Your task to perform on an android device: Add usb-a to usb-b to the cart on target.com Image 0: 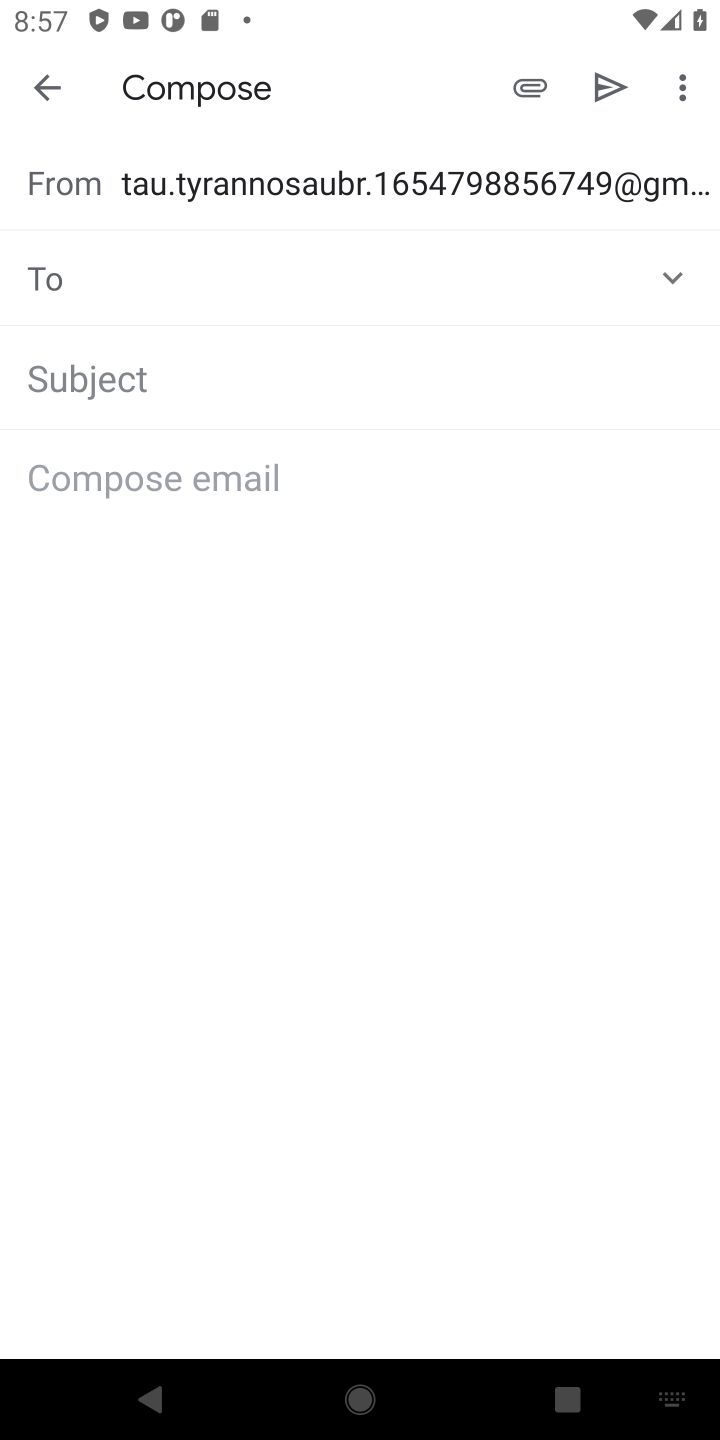
Step 0: press home button
Your task to perform on an android device: Add usb-a to usb-b to the cart on target.com Image 1: 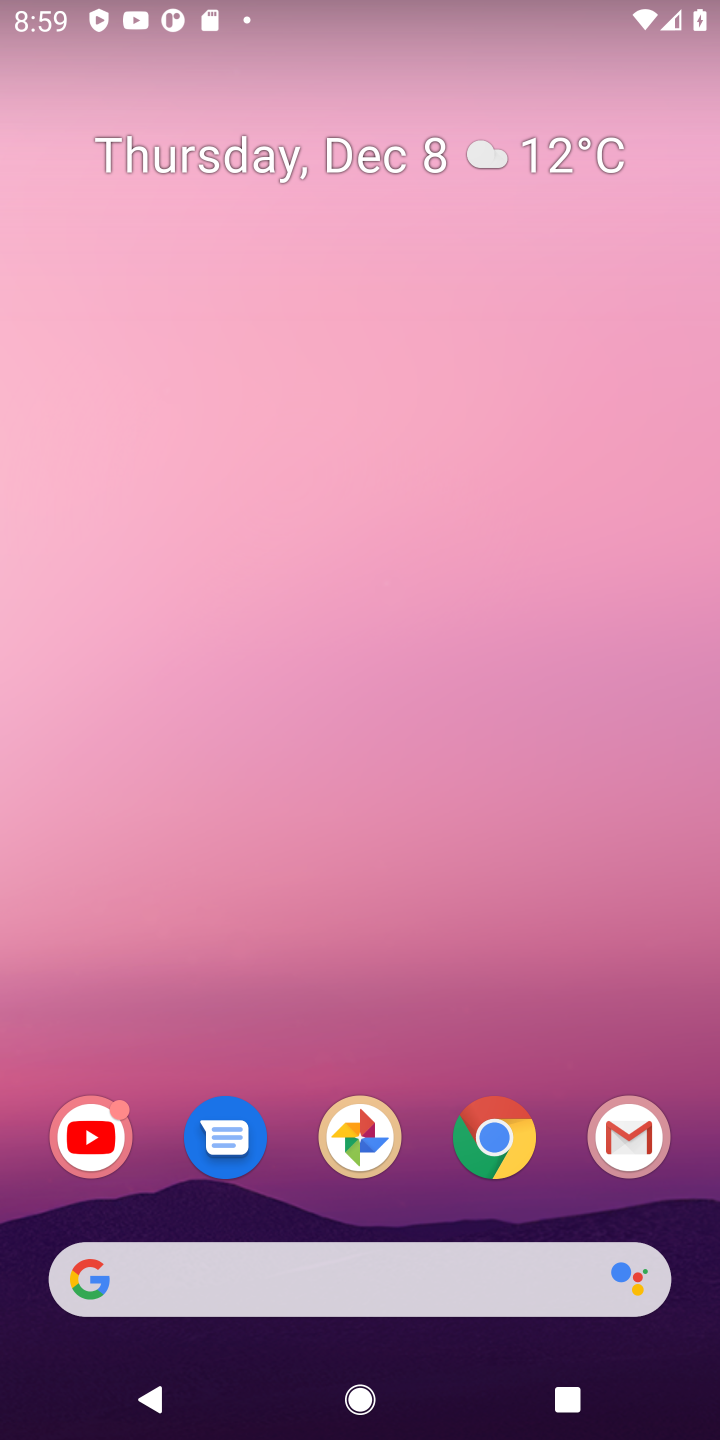
Step 1: click (508, 1157)
Your task to perform on an android device: Add usb-a to usb-b to the cart on target.com Image 2: 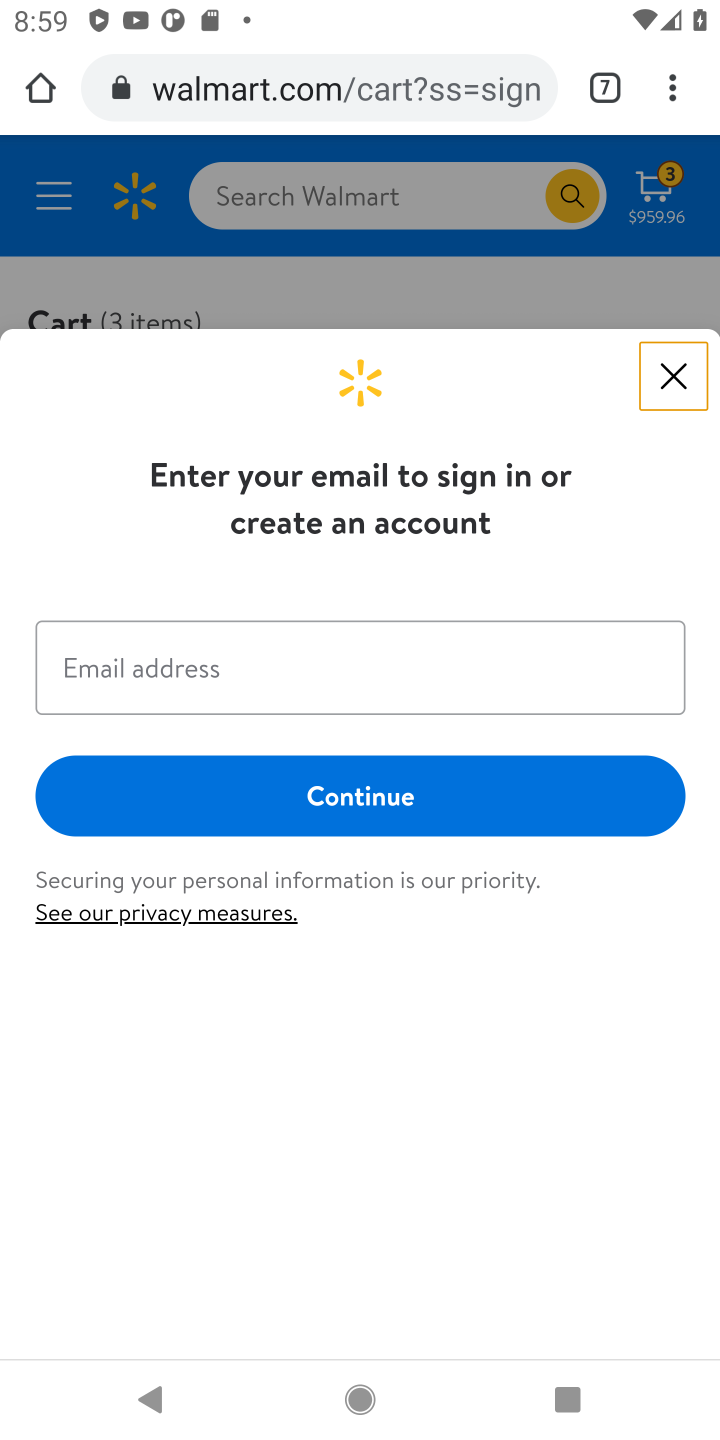
Step 2: click (605, 92)
Your task to perform on an android device: Add usb-a to usb-b to the cart on target.com Image 3: 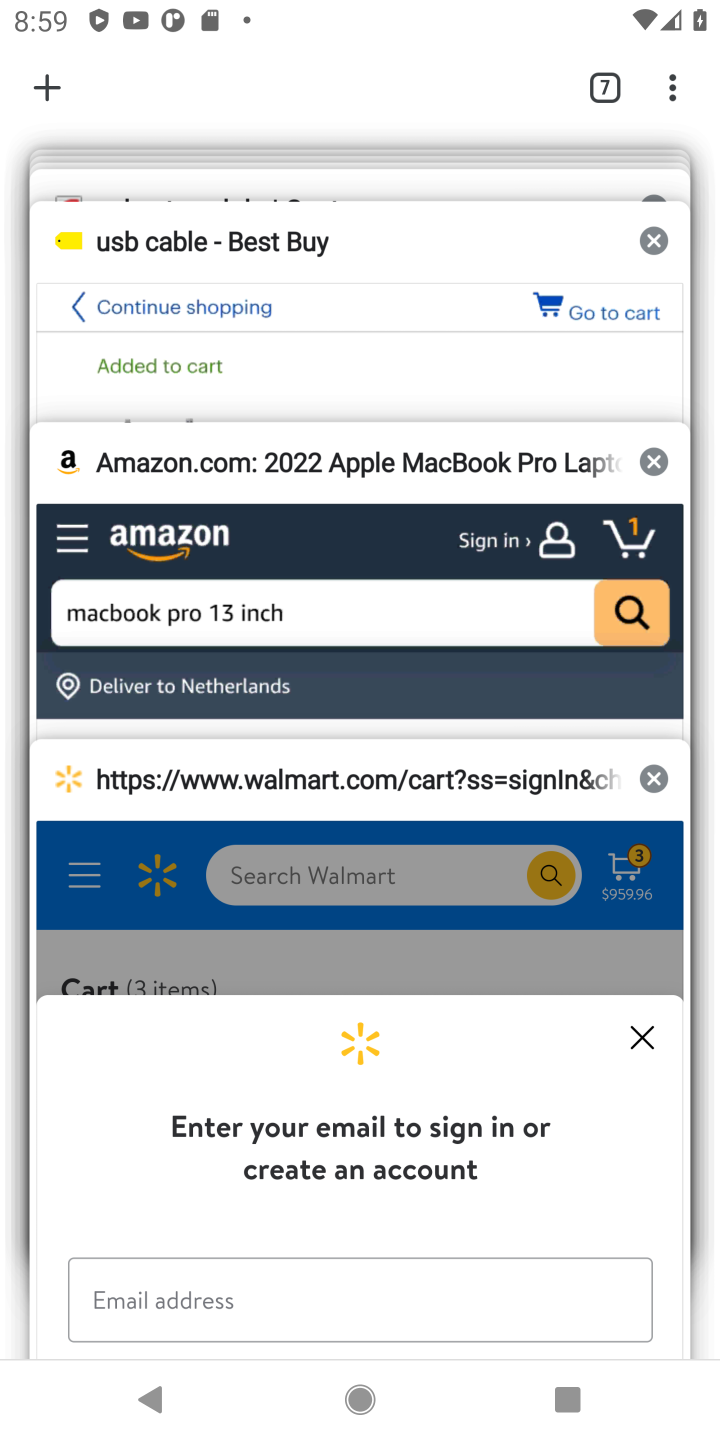
Step 3: drag from (344, 187) to (359, 423)
Your task to perform on an android device: Add usb-a to usb-b to the cart on target.com Image 4: 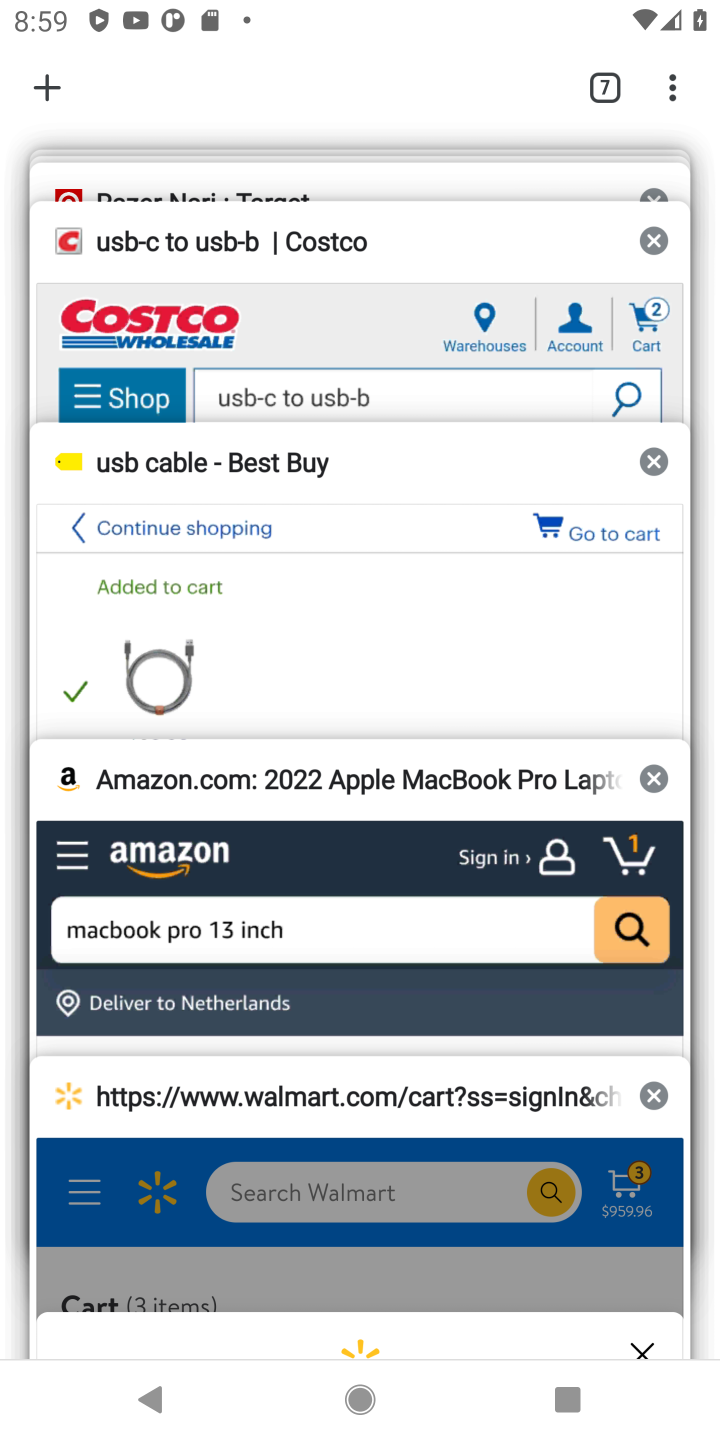
Step 4: drag from (325, 206) to (365, 581)
Your task to perform on an android device: Add usb-a to usb-b to the cart on target.com Image 5: 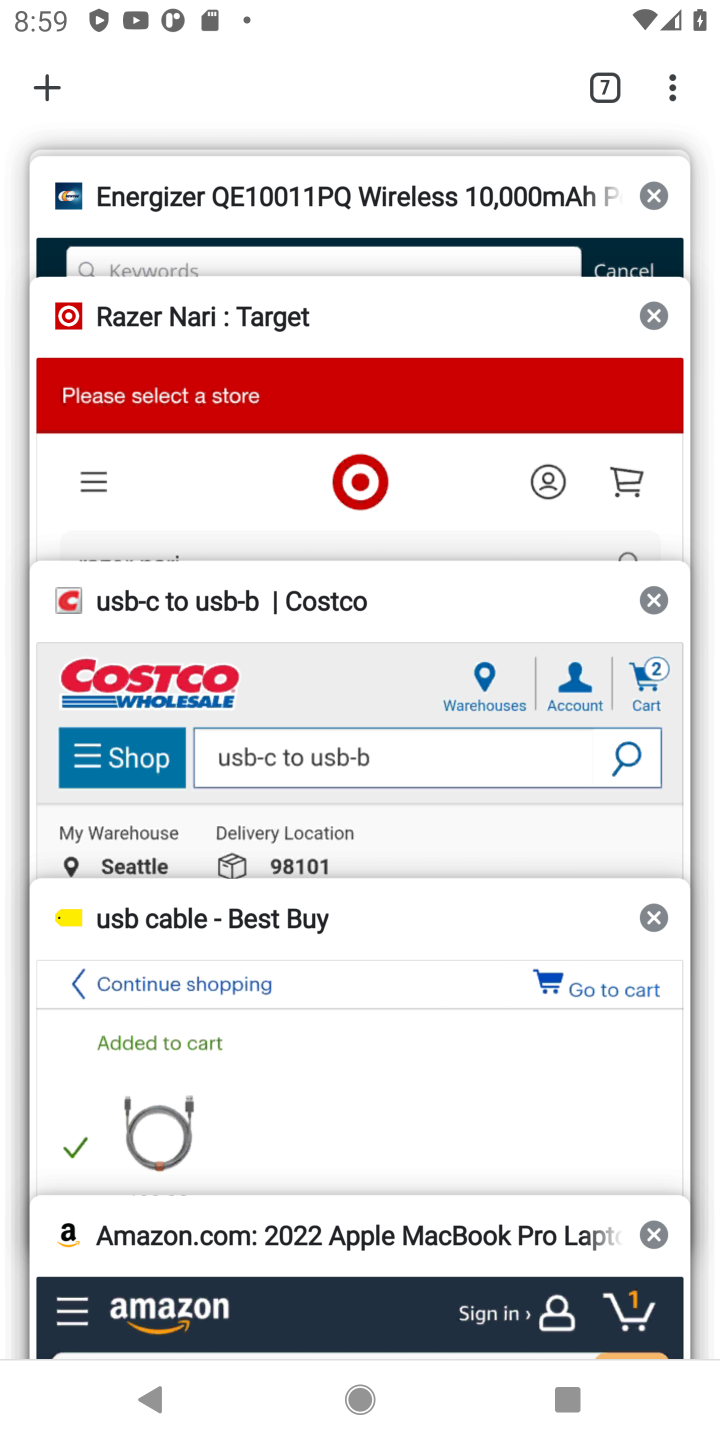
Step 5: click (250, 468)
Your task to perform on an android device: Add usb-a to usb-b to the cart on target.com Image 6: 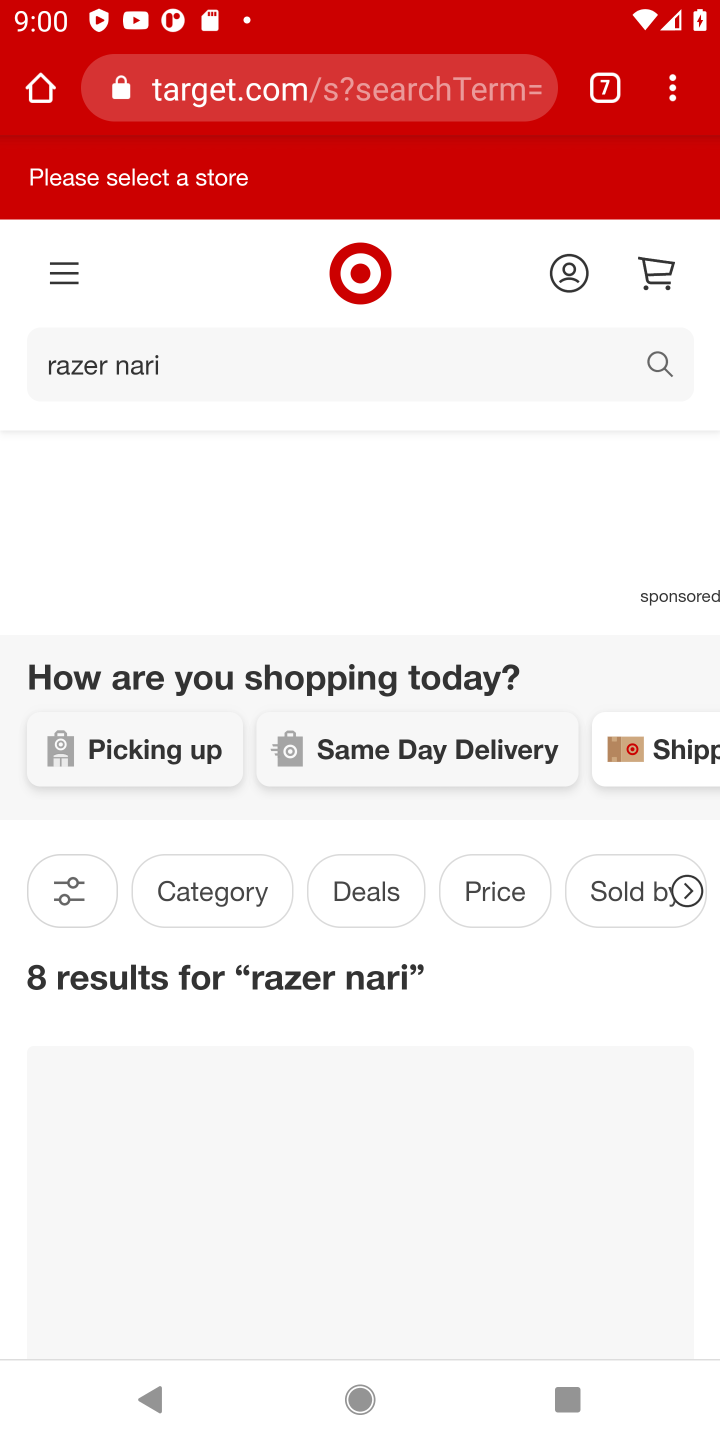
Step 6: click (298, 382)
Your task to perform on an android device: Add usb-a to usb-b to the cart on target.com Image 7: 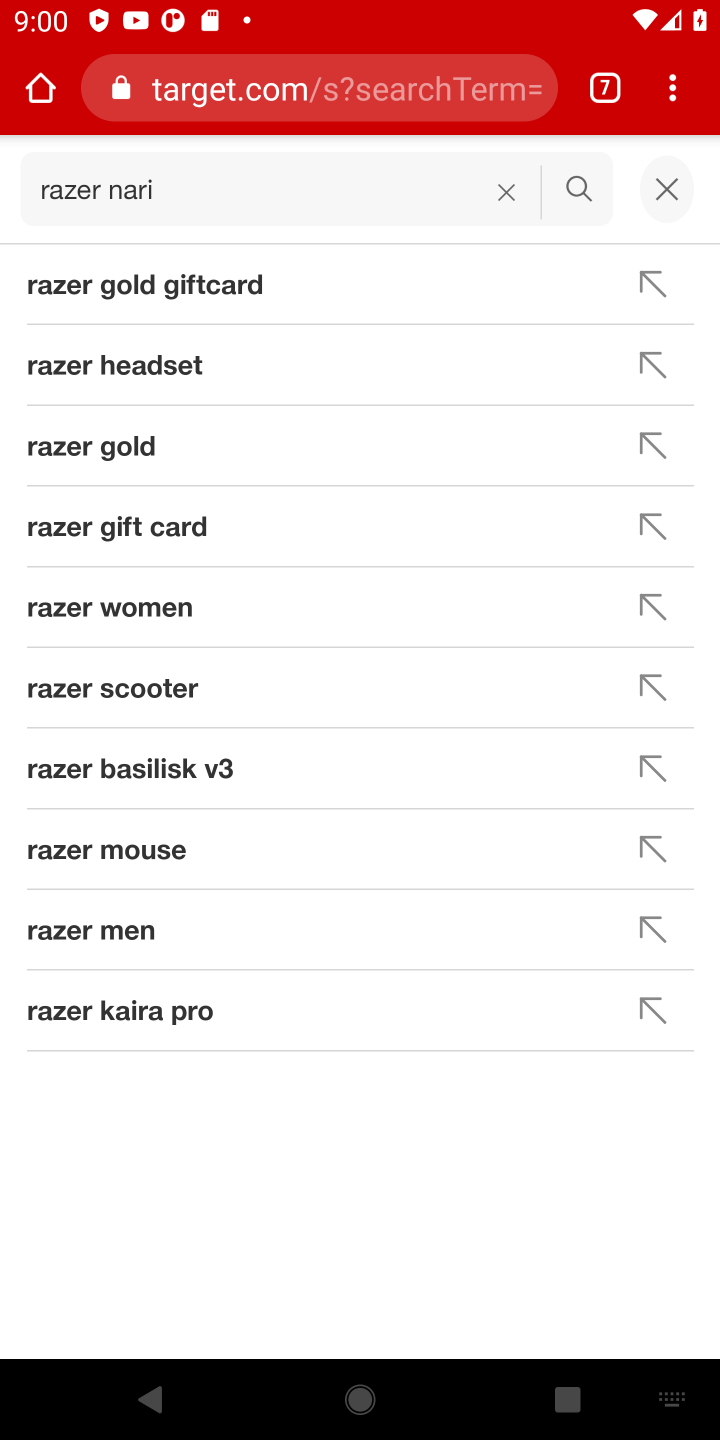
Step 7: click (499, 184)
Your task to perform on an android device: Add usb-a to usb-b to the cart on target.com Image 8: 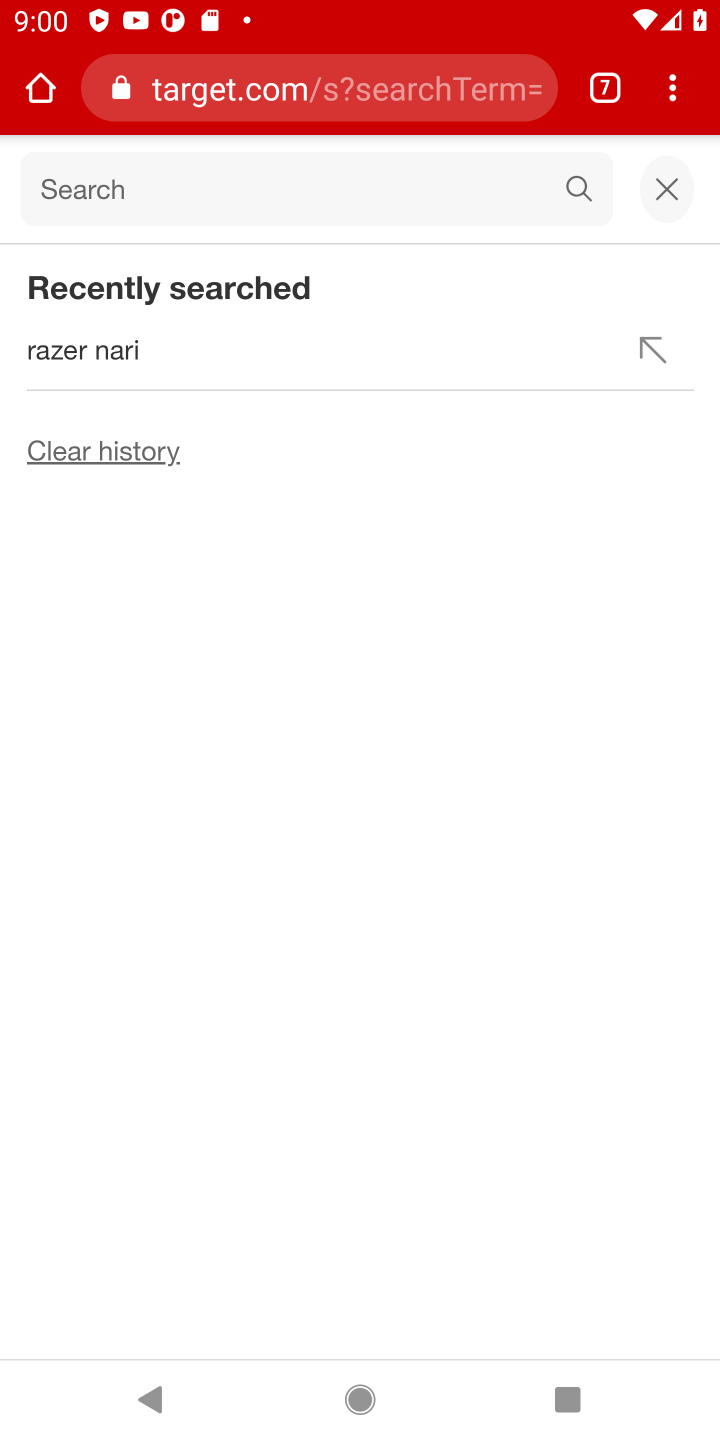
Step 8: type "usb-a to usb-b"
Your task to perform on an android device: Add usb-a to usb-b to the cart on target.com Image 9: 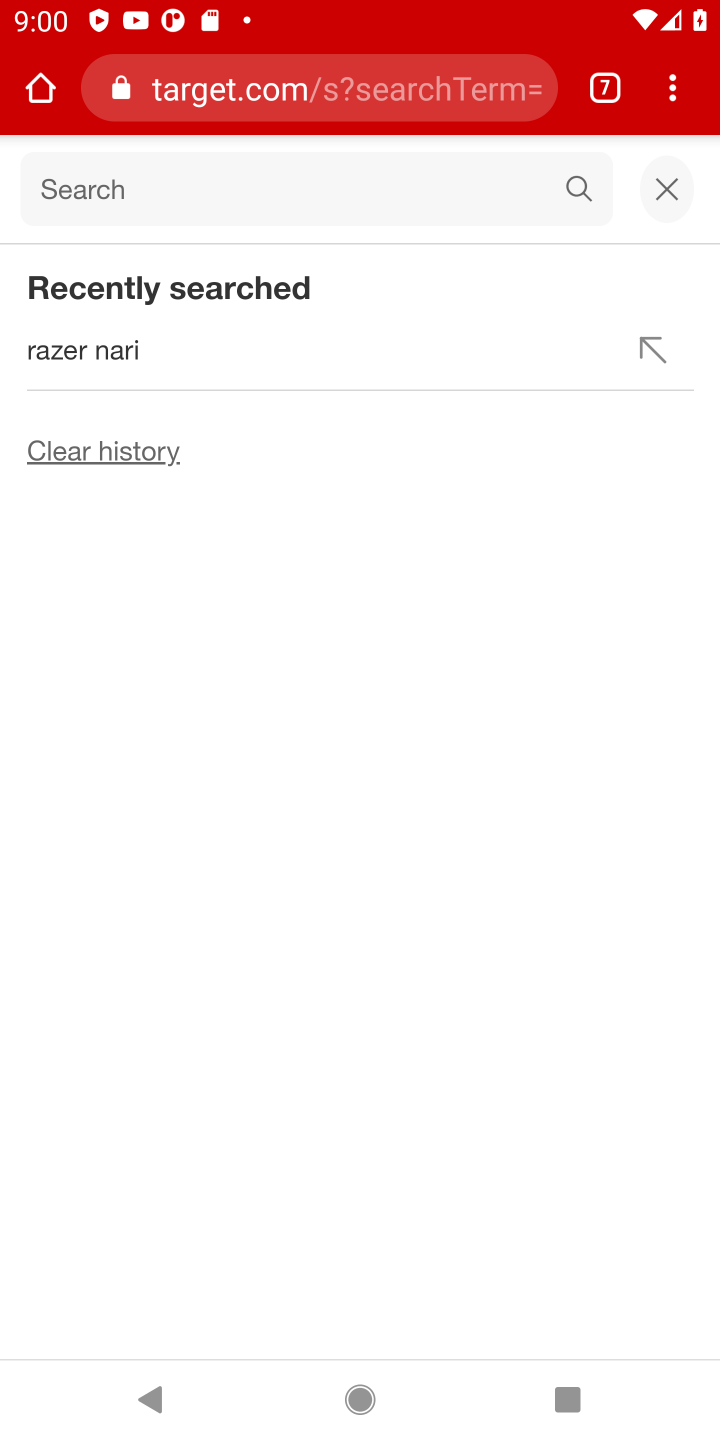
Step 9: click (367, 191)
Your task to perform on an android device: Add usb-a to usb-b to the cart on target.com Image 10: 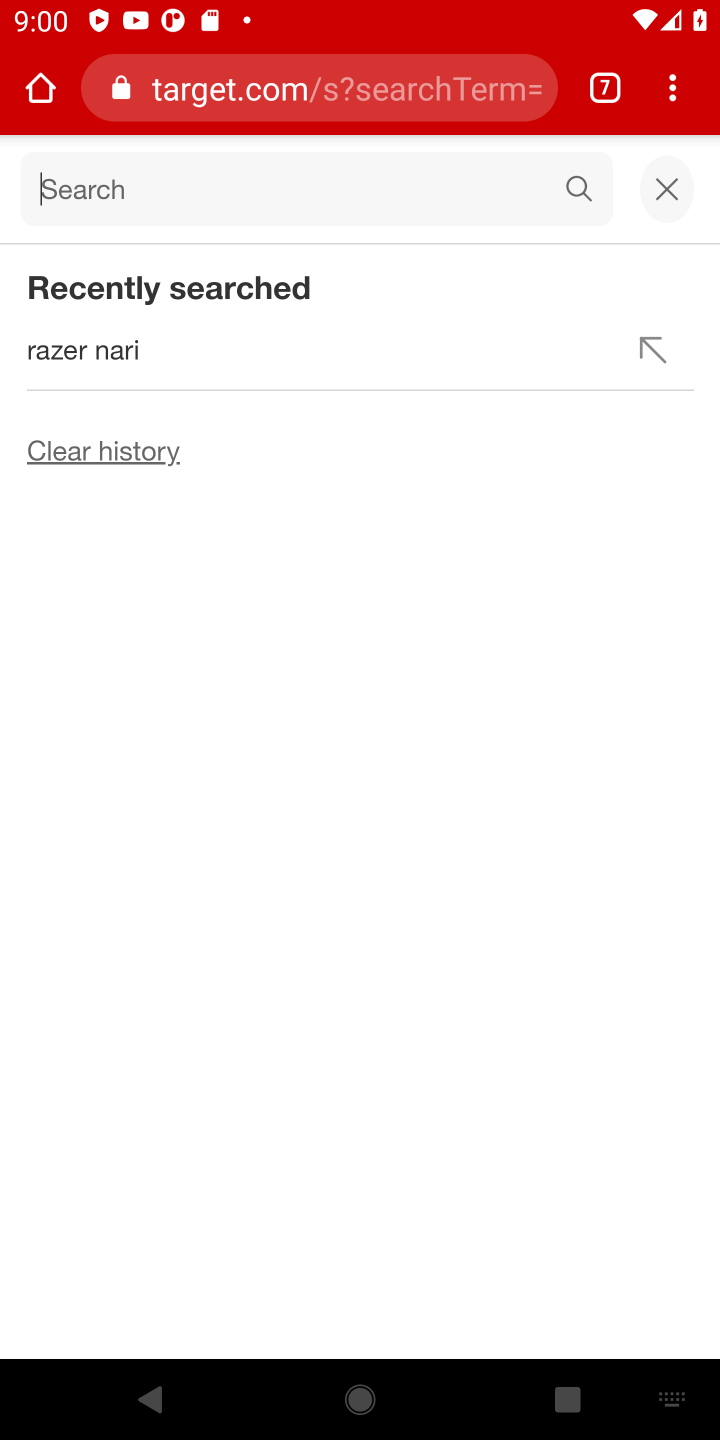
Step 10: type "usb-a to usb-b"
Your task to perform on an android device: Add usb-a to usb-b to the cart on target.com Image 11: 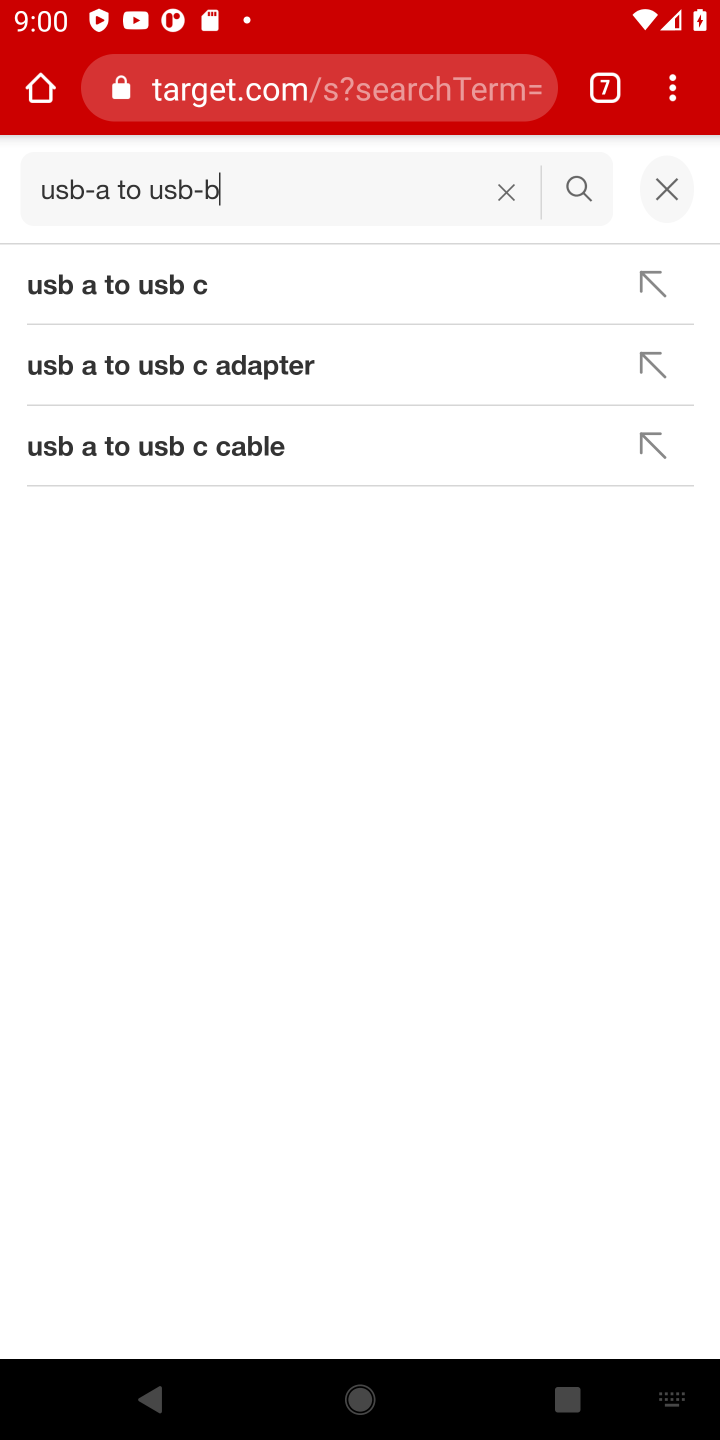
Step 11: click (61, 270)
Your task to perform on an android device: Add usb-a to usb-b to the cart on target.com Image 12: 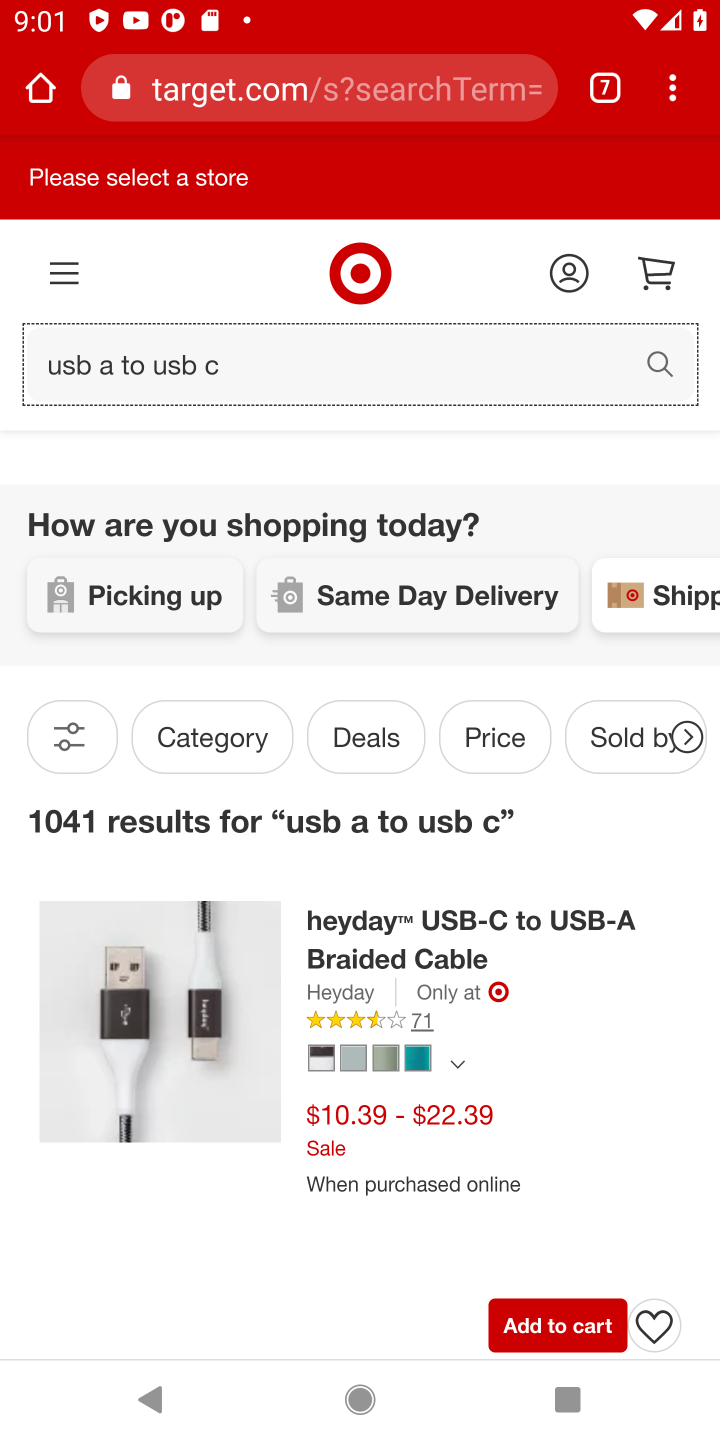
Step 12: click (547, 1308)
Your task to perform on an android device: Add usb-a to usb-b to the cart on target.com Image 13: 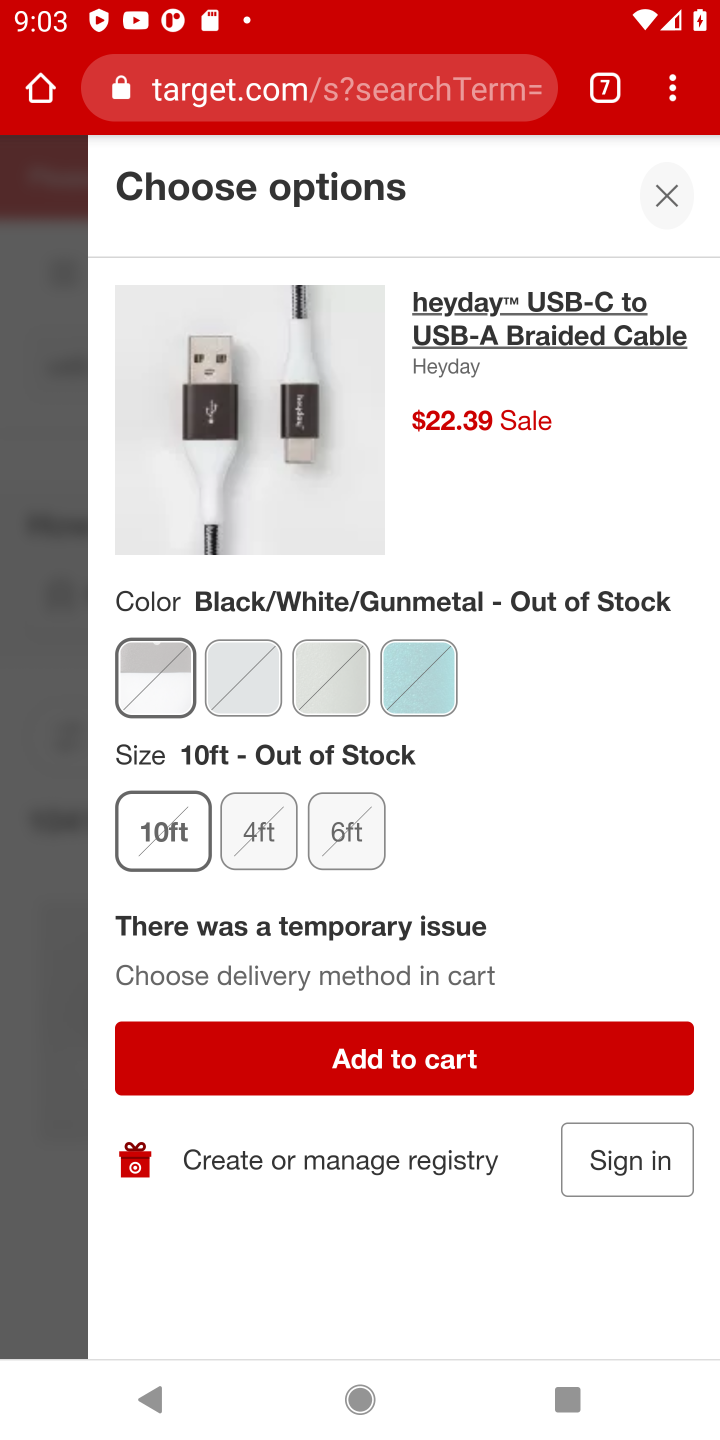
Step 13: click (494, 1071)
Your task to perform on an android device: Add usb-a to usb-b to the cart on target.com Image 14: 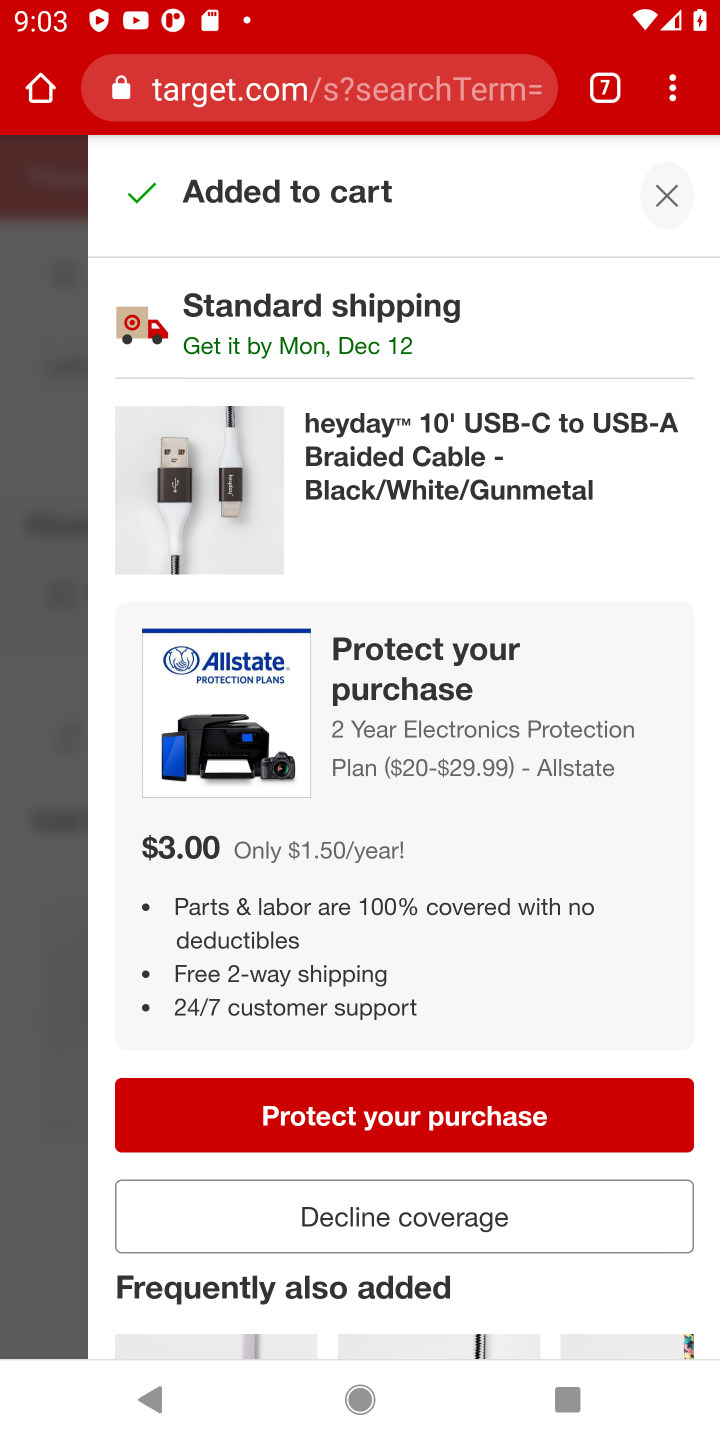
Step 14: task complete